Your task to perform on an android device: delete the emails in spam in the gmail app Image 0: 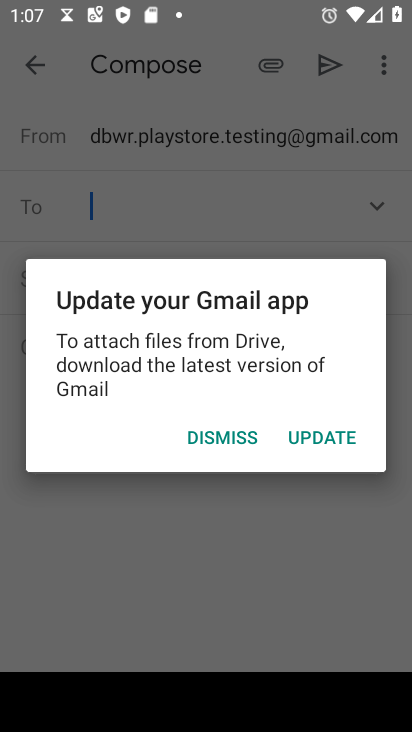
Step 0: press home button
Your task to perform on an android device: delete the emails in spam in the gmail app Image 1: 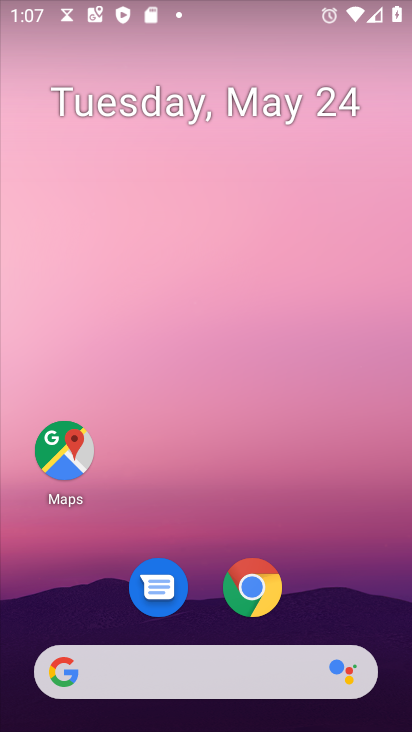
Step 1: drag from (163, 695) to (179, 391)
Your task to perform on an android device: delete the emails in spam in the gmail app Image 2: 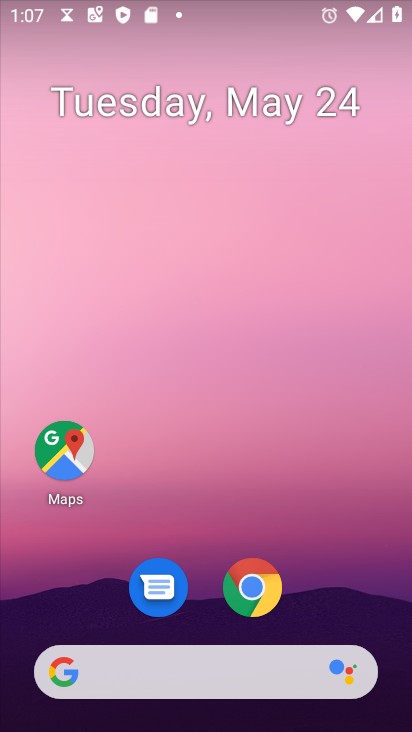
Step 2: drag from (218, 669) to (204, 250)
Your task to perform on an android device: delete the emails in spam in the gmail app Image 3: 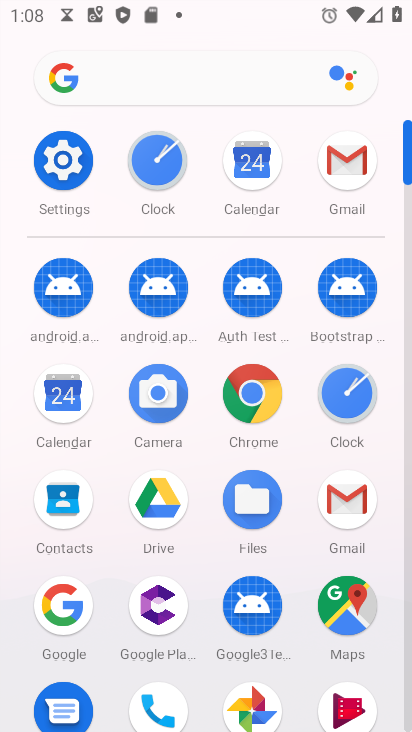
Step 3: click (333, 159)
Your task to perform on an android device: delete the emails in spam in the gmail app Image 4: 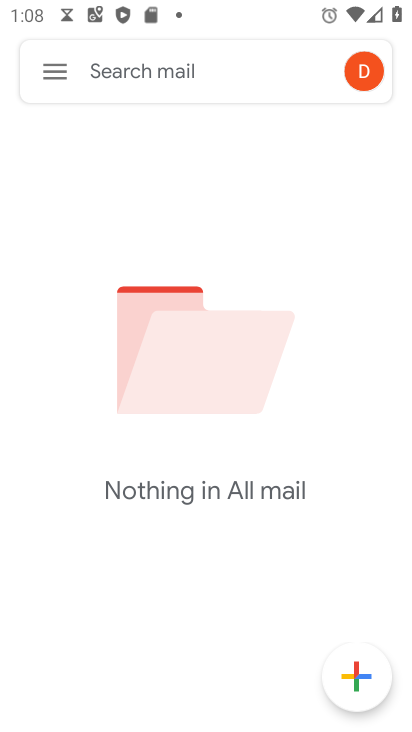
Step 4: click (57, 76)
Your task to perform on an android device: delete the emails in spam in the gmail app Image 5: 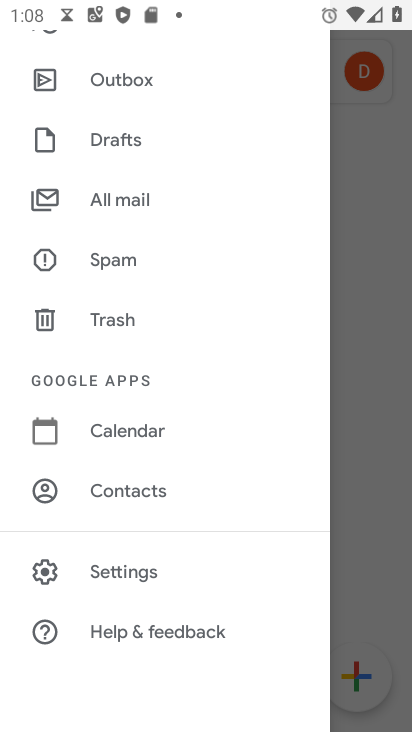
Step 5: click (123, 267)
Your task to perform on an android device: delete the emails in spam in the gmail app Image 6: 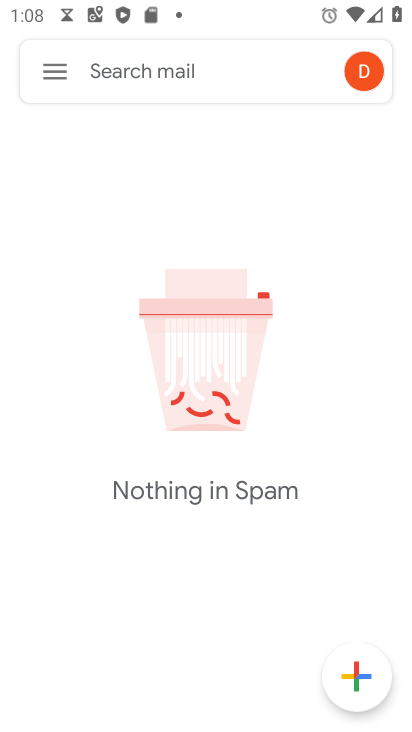
Step 6: task complete